Your task to perform on an android device: Open Google Maps Image 0: 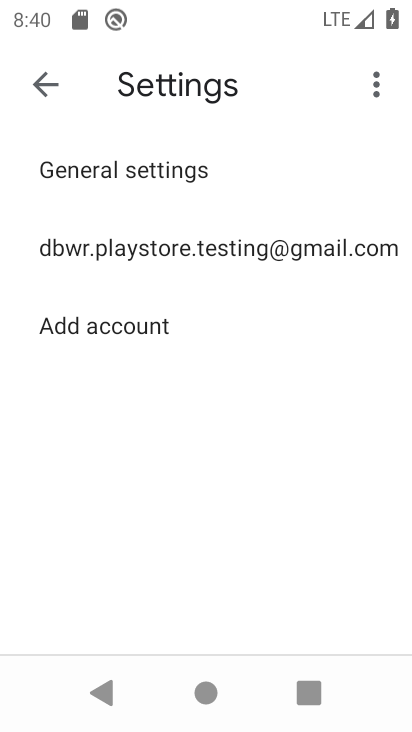
Step 0: press home button
Your task to perform on an android device: Open Google Maps Image 1: 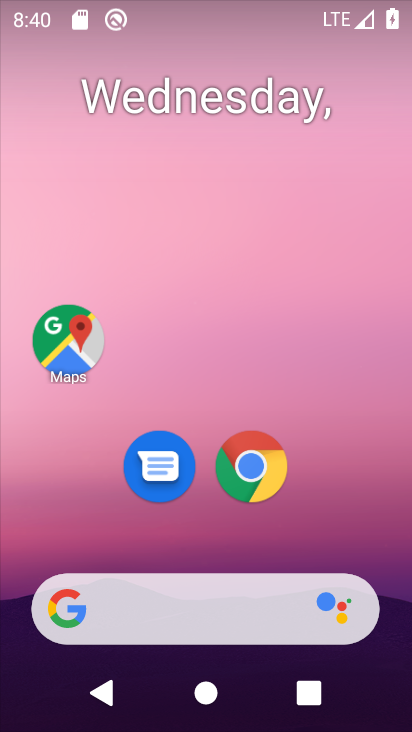
Step 1: drag from (231, 723) to (234, 40)
Your task to perform on an android device: Open Google Maps Image 2: 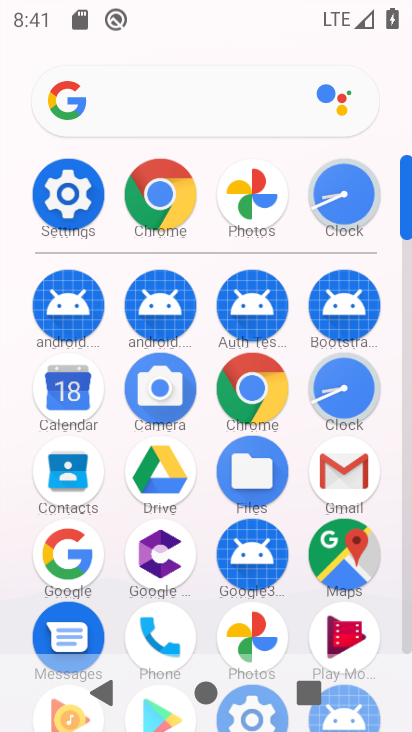
Step 2: click (354, 545)
Your task to perform on an android device: Open Google Maps Image 3: 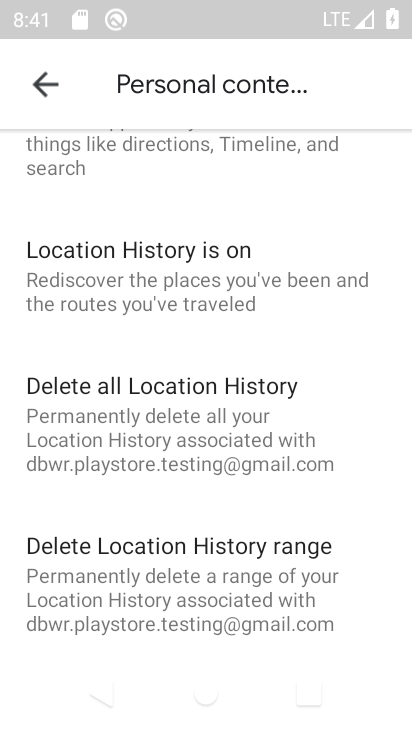
Step 3: click (41, 81)
Your task to perform on an android device: Open Google Maps Image 4: 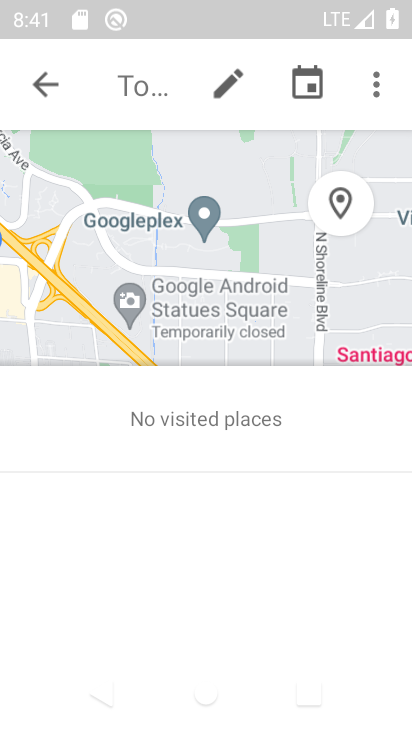
Step 4: task complete